Your task to perform on an android device: delete the emails in spam in the gmail app Image 0: 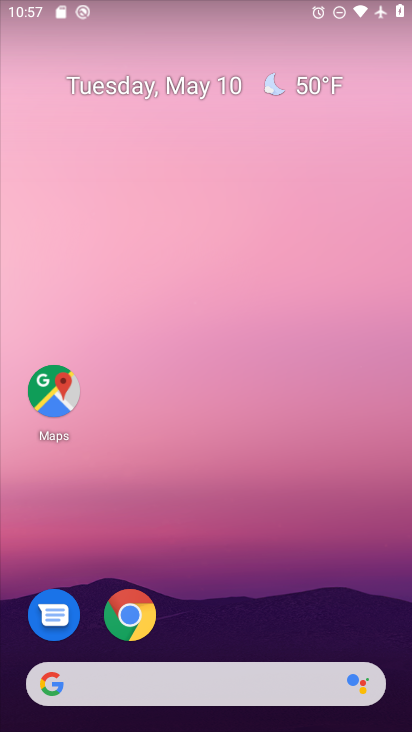
Step 0: drag from (377, 618) to (252, 54)
Your task to perform on an android device: delete the emails in spam in the gmail app Image 1: 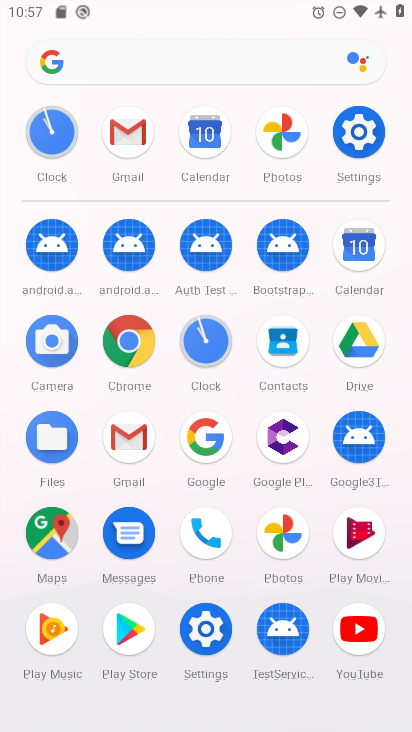
Step 1: click (128, 438)
Your task to perform on an android device: delete the emails in spam in the gmail app Image 2: 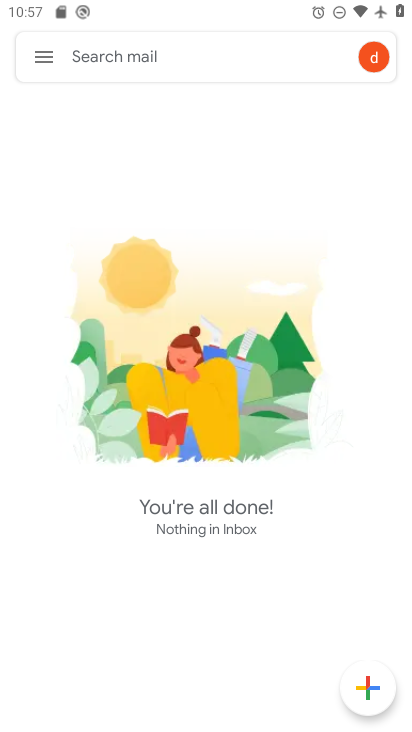
Step 2: click (39, 53)
Your task to perform on an android device: delete the emails in spam in the gmail app Image 3: 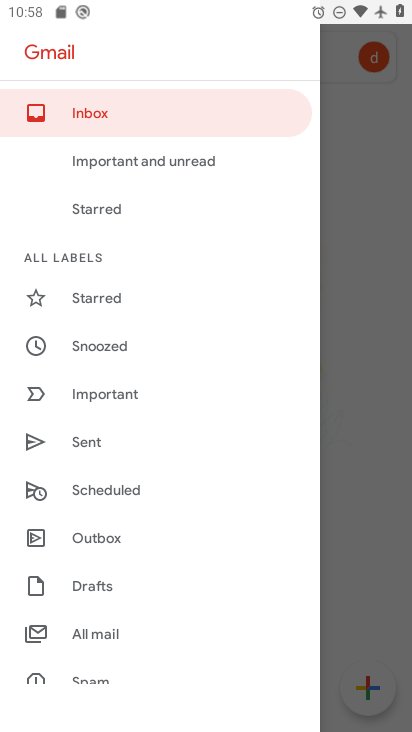
Step 3: drag from (133, 615) to (167, 224)
Your task to perform on an android device: delete the emails in spam in the gmail app Image 4: 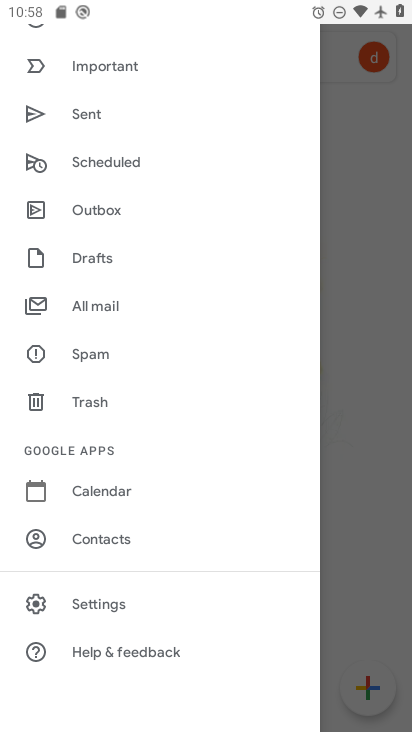
Step 4: click (88, 350)
Your task to perform on an android device: delete the emails in spam in the gmail app Image 5: 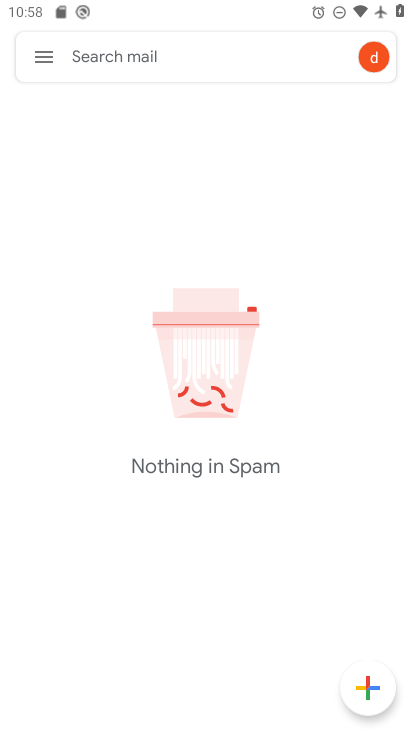
Step 5: task complete